Your task to perform on an android device: toggle translation in the chrome app Image 0: 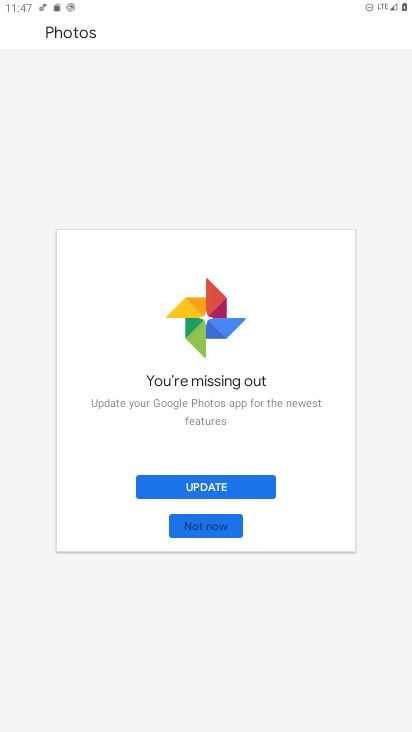
Step 0: press home button
Your task to perform on an android device: toggle translation in the chrome app Image 1: 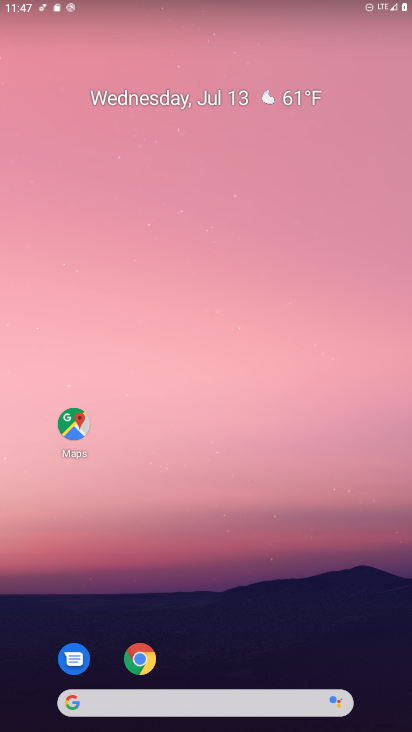
Step 1: click (142, 662)
Your task to perform on an android device: toggle translation in the chrome app Image 2: 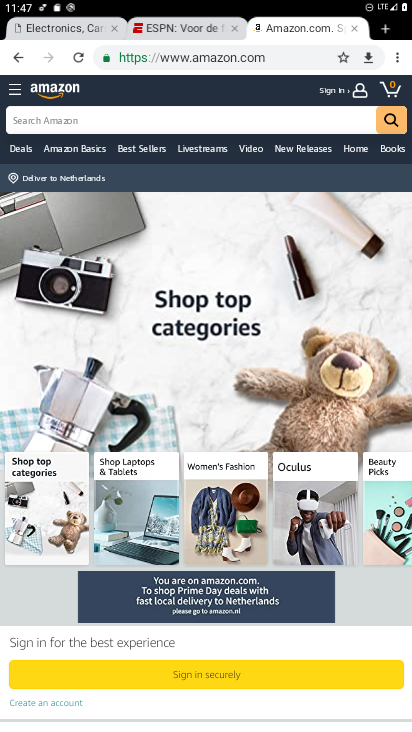
Step 2: click (397, 61)
Your task to perform on an android device: toggle translation in the chrome app Image 3: 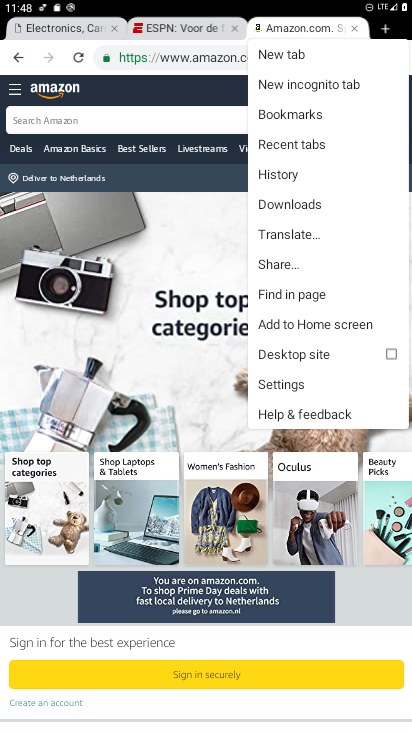
Step 3: click (285, 383)
Your task to perform on an android device: toggle translation in the chrome app Image 4: 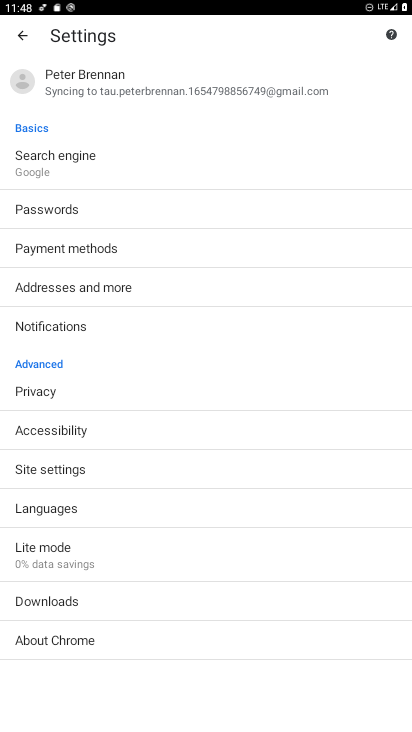
Step 4: click (36, 502)
Your task to perform on an android device: toggle translation in the chrome app Image 5: 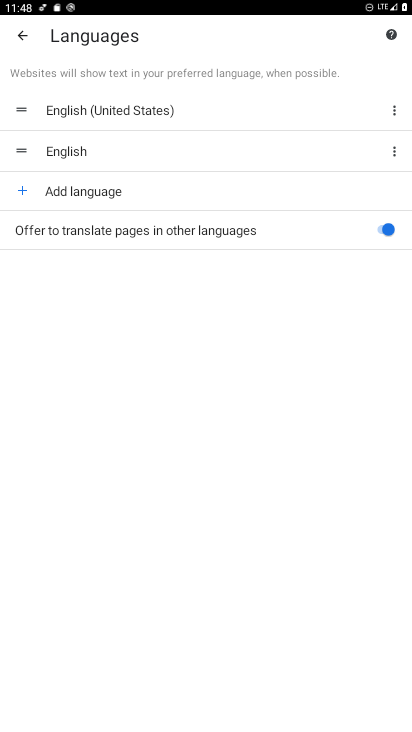
Step 5: click (384, 228)
Your task to perform on an android device: toggle translation in the chrome app Image 6: 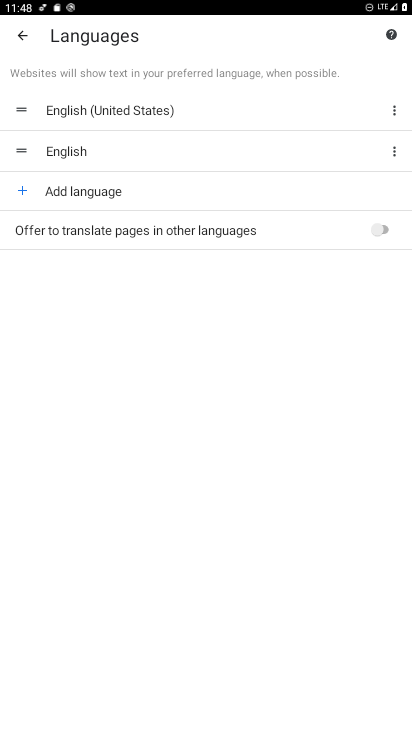
Step 6: task complete